Your task to perform on an android device: Open calendar and show me the fourth week of next month Image 0: 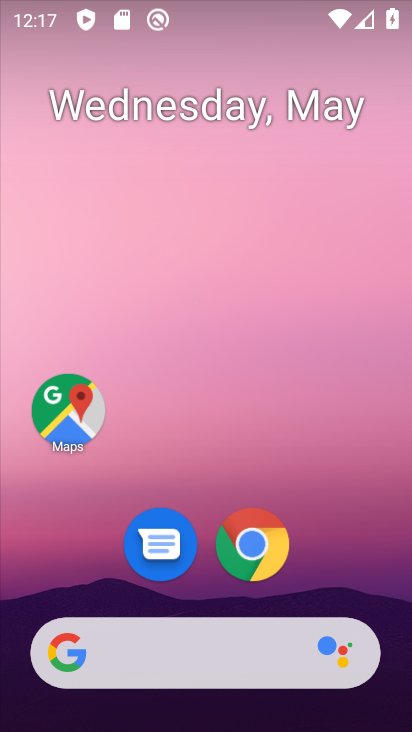
Step 0: drag from (335, 545) to (255, 152)
Your task to perform on an android device: Open calendar and show me the fourth week of next month Image 1: 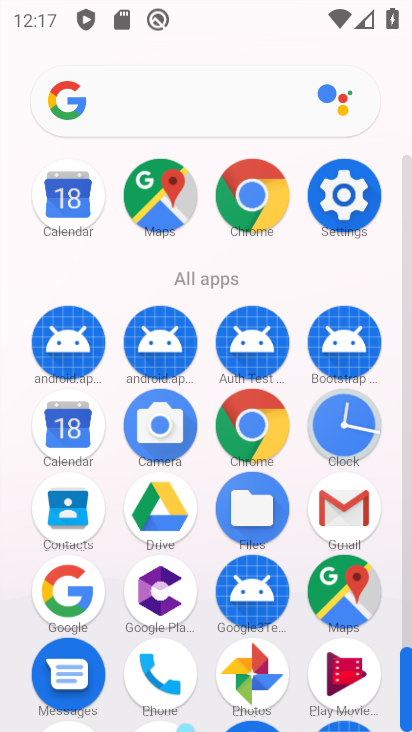
Step 1: click (64, 426)
Your task to perform on an android device: Open calendar and show me the fourth week of next month Image 2: 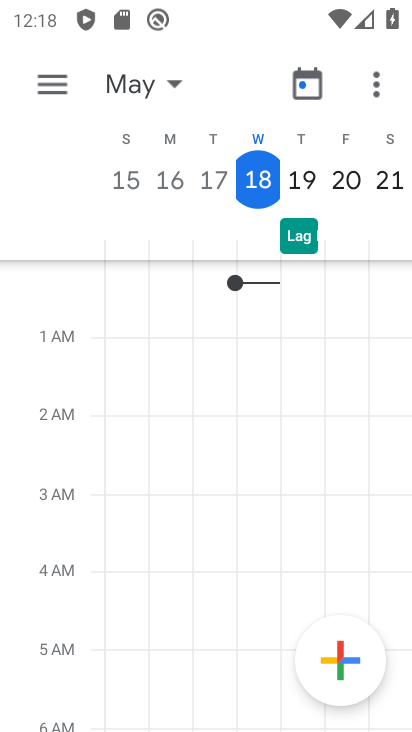
Step 2: click (117, 91)
Your task to perform on an android device: Open calendar and show me the fourth week of next month Image 3: 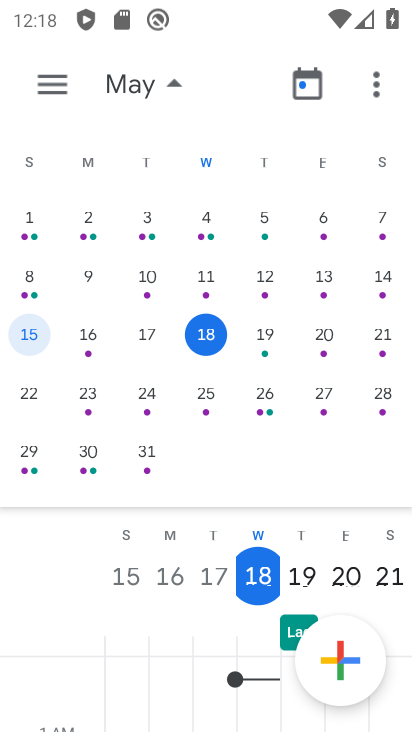
Step 3: drag from (383, 263) to (0, 246)
Your task to perform on an android device: Open calendar and show me the fourth week of next month Image 4: 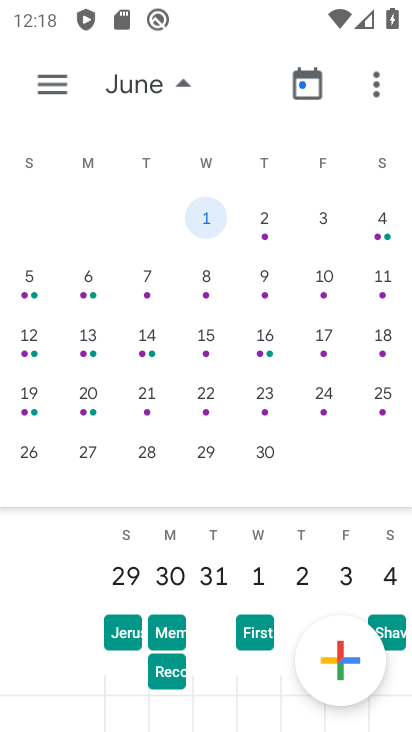
Step 4: click (38, 452)
Your task to perform on an android device: Open calendar and show me the fourth week of next month Image 5: 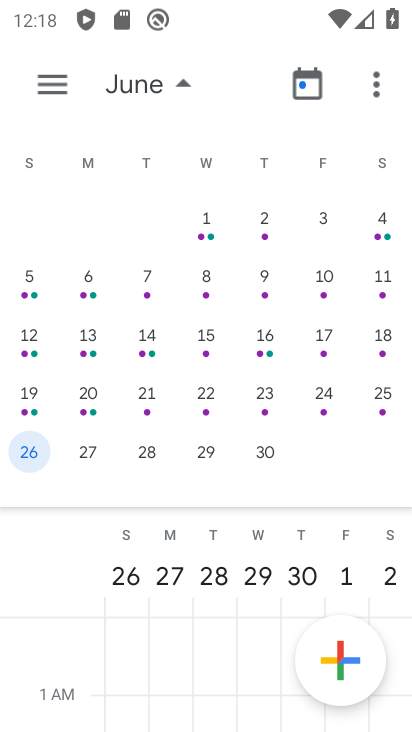
Step 5: task complete